Your task to perform on an android device: Open privacy settings Image 0: 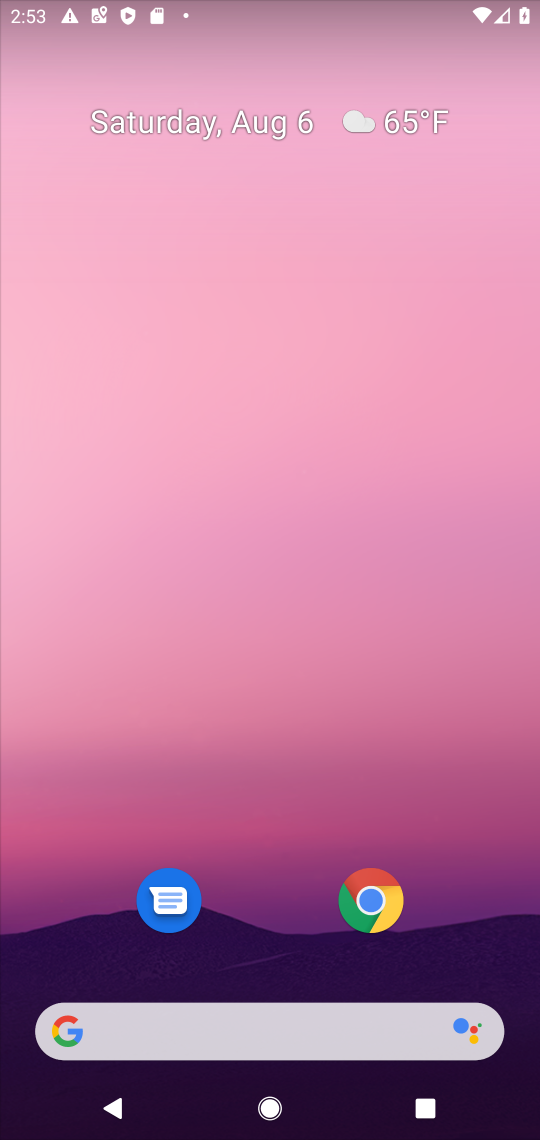
Step 0: press home button
Your task to perform on an android device: Open privacy settings Image 1: 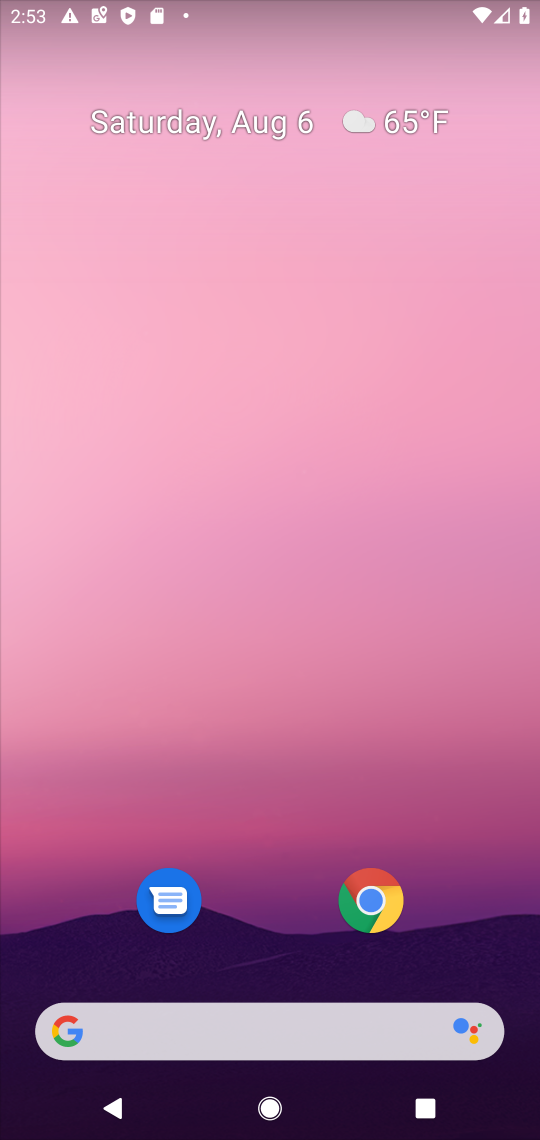
Step 1: drag from (276, 923) to (483, 200)
Your task to perform on an android device: Open privacy settings Image 2: 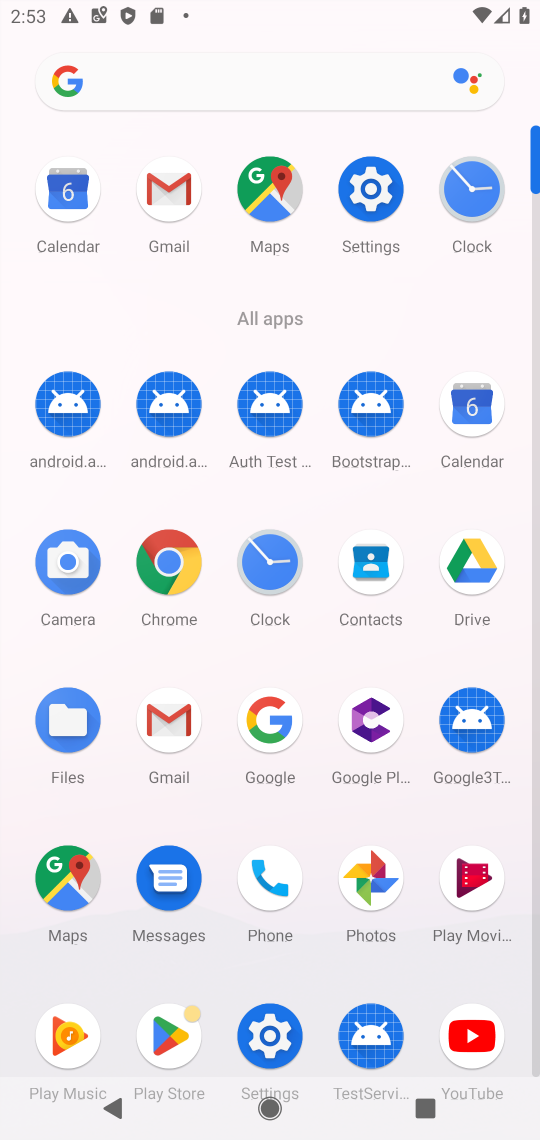
Step 2: click (383, 185)
Your task to perform on an android device: Open privacy settings Image 3: 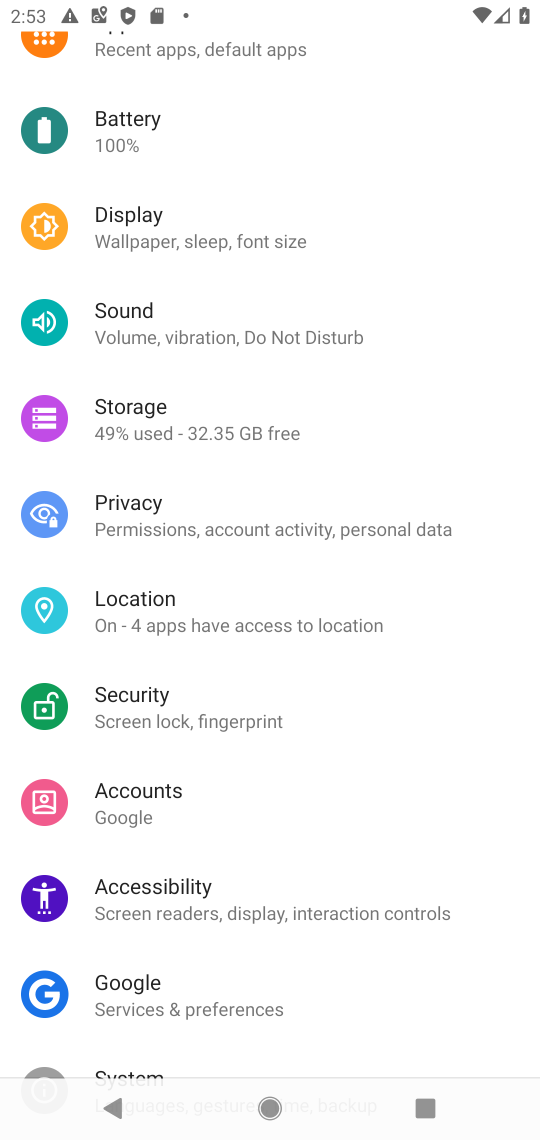
Step 3: click (186, 514)
Your task to perform on an android device: Open privacy settings Image 4: 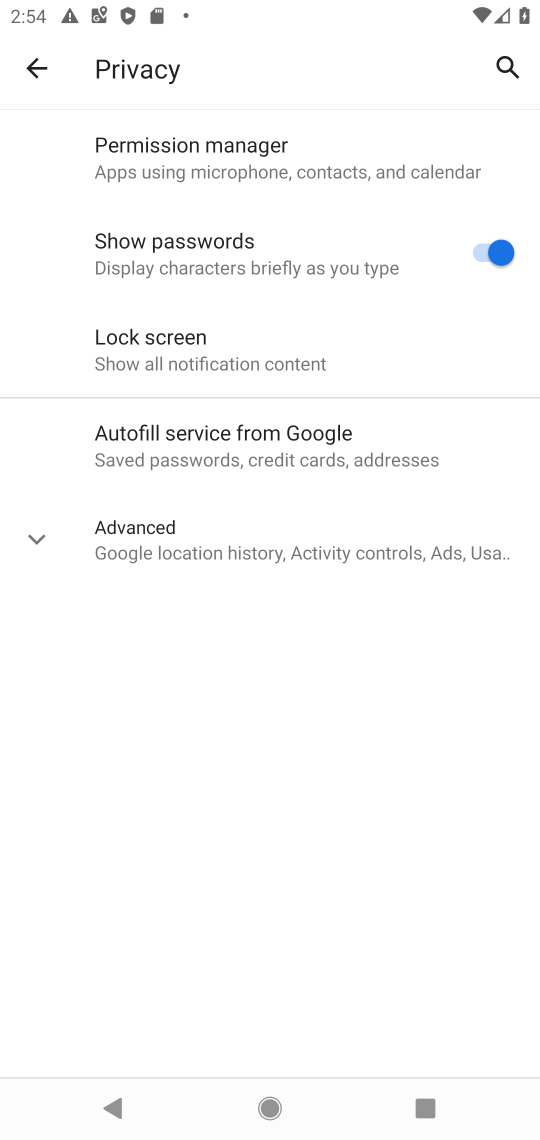
Step 4: task complete